Your task to perform on an android device: Open calendar and show me the first week of next month Image 0: 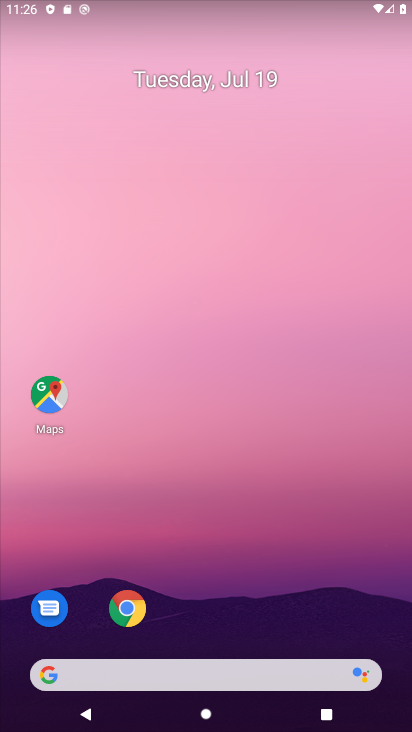
Step 0: drag from (231, 279) to (218, 39)
Your task to perform on an android device: Open calendar and show me the first week of next month Image 1: 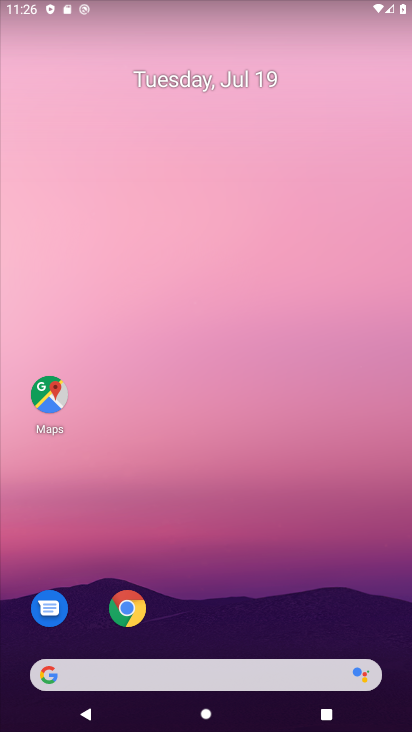
Step 1: drag from (189, 615) to (228, 60)
Your task to perform on an android device: Open calendar and show me the first week of next month Image 2: 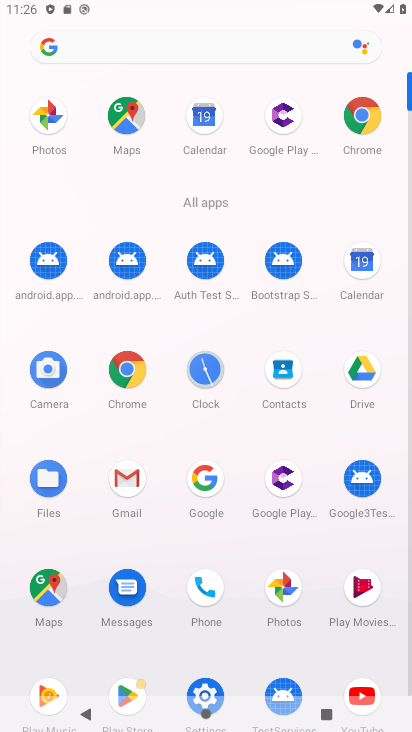
Step 2: click (361, 262)
Your task to perform on an android device: Open calendar and show me the first week of next month Image 3: 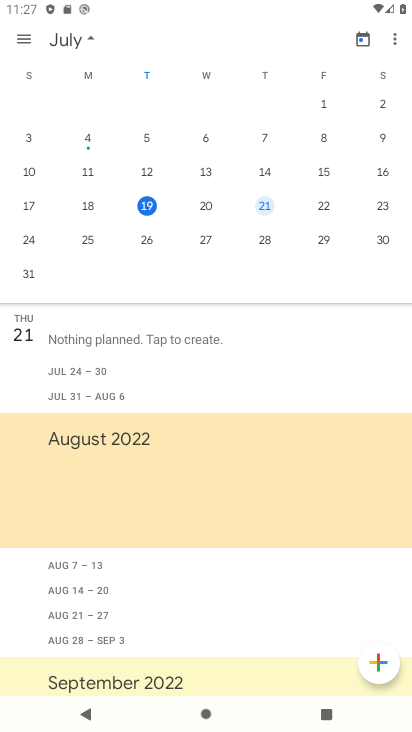
Step 3: drag from (407, 279) to (4, 250)
Your task to perform on an android device: Open calendar and show me the first week of next month Image 4: 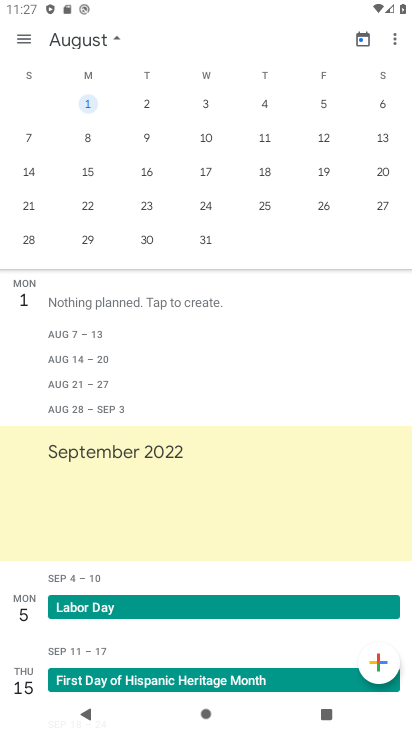
Step 4: click (260, 106)
Your task to perform on an android device: Open calendar and show me the first week of next month Image 5: 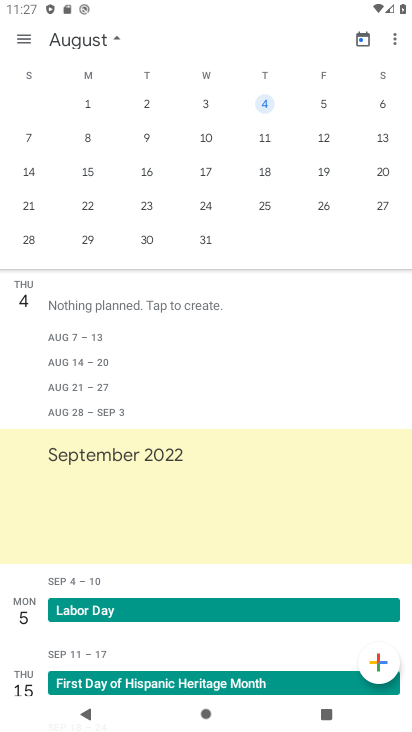
Step 5: task complete